Your task to perform on an android device: turn on sleep mode Image 0: 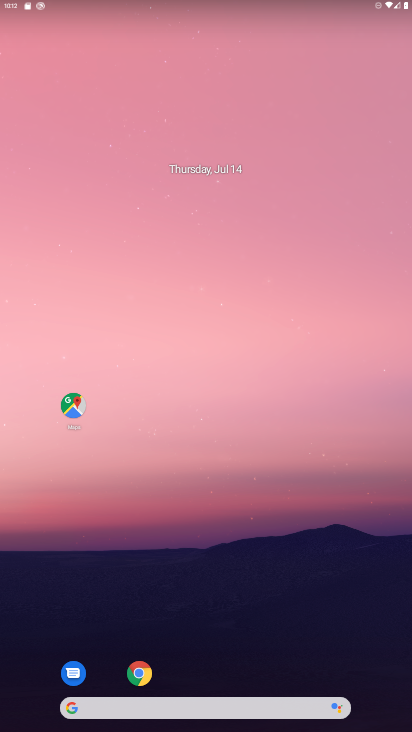
Step 0: drag from (224, 571) to (157, 203)
Your task to perform on an android device: turn on sleep mode Image 1: 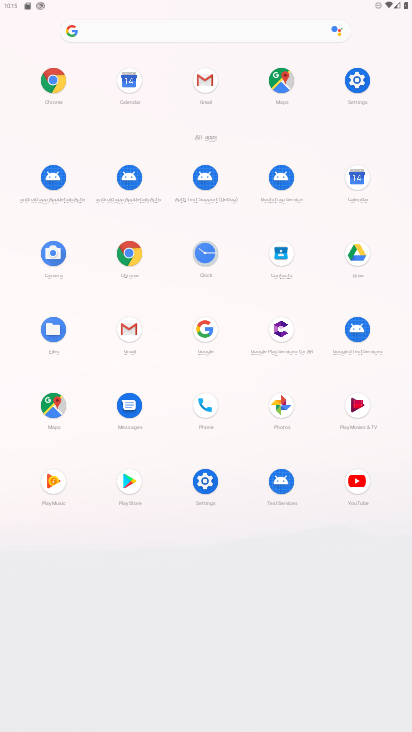
Step 1: click (355, 87)
Your task to perform on an android device: turn on sleep mode Image 2: 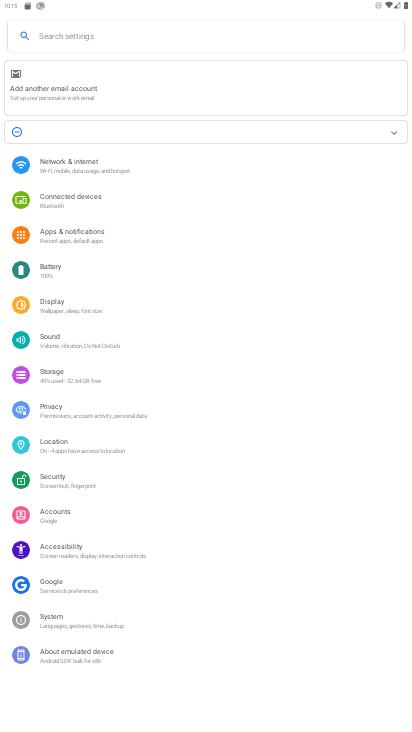
Step 2: click (58, 308)
Your task to perform on an android device: turn on sleep mode Image 3: 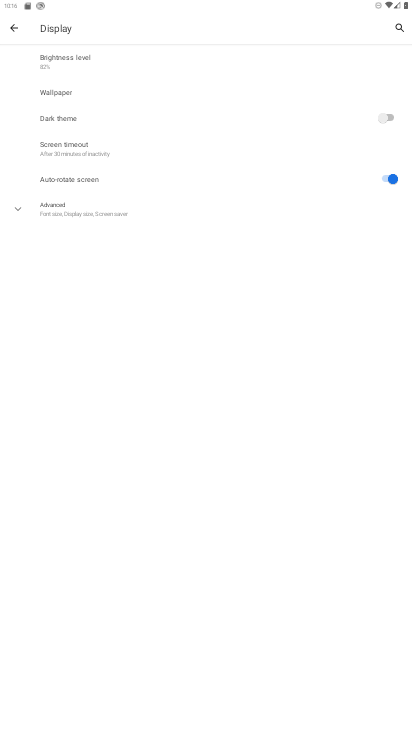
Step 3: task complete